Your task to perform on an android device: Open the Play Movies app and select the watchlist tab. Image 0: 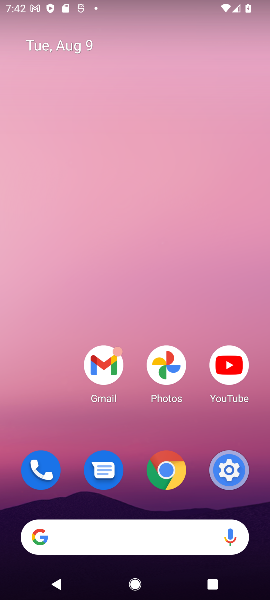
Step 0: drag from (132, 500) to (129, 25)
Your task to perform on an android device: Open the Play Movies app and select the watchlist tab. Image 1: 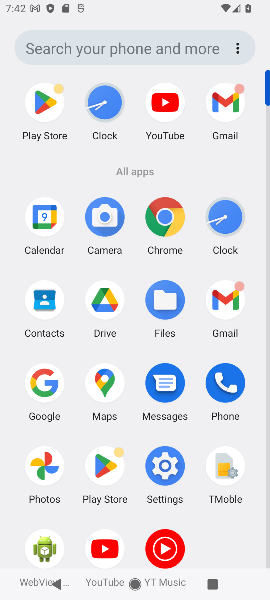
Step 1: task complete